Your task to perform on an android device: toggle priority inbox in the gmail app Image 0: 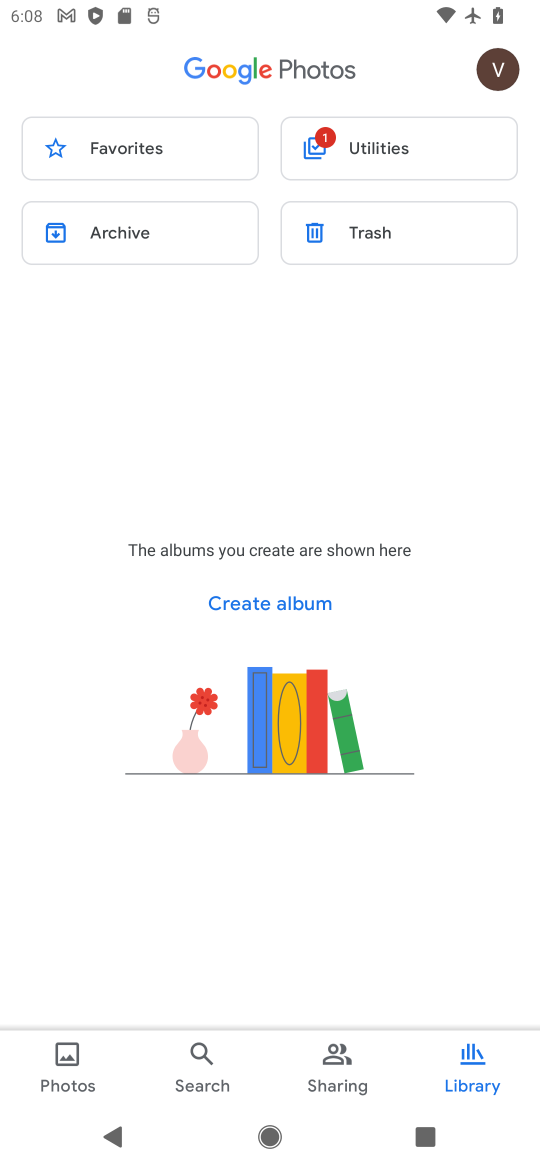
Step 0: press home button
Your task to perform on an android device: toggle priority inbox in the gmail app Image 1: 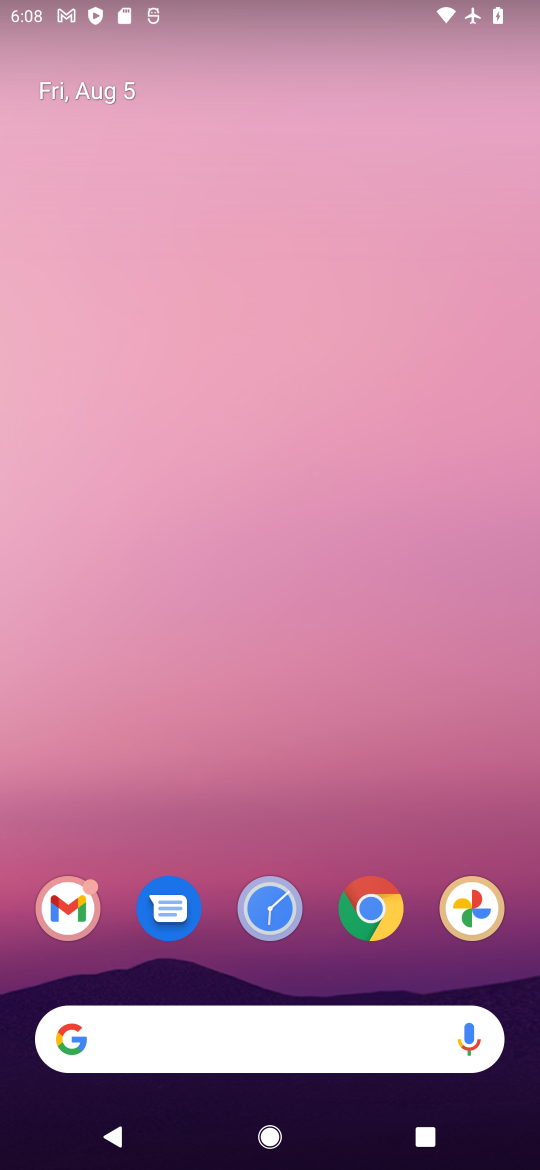
Step 1: click (65, 907)
Your task to perform on an android device: toggle priority inbox in the gmail app Image 2: 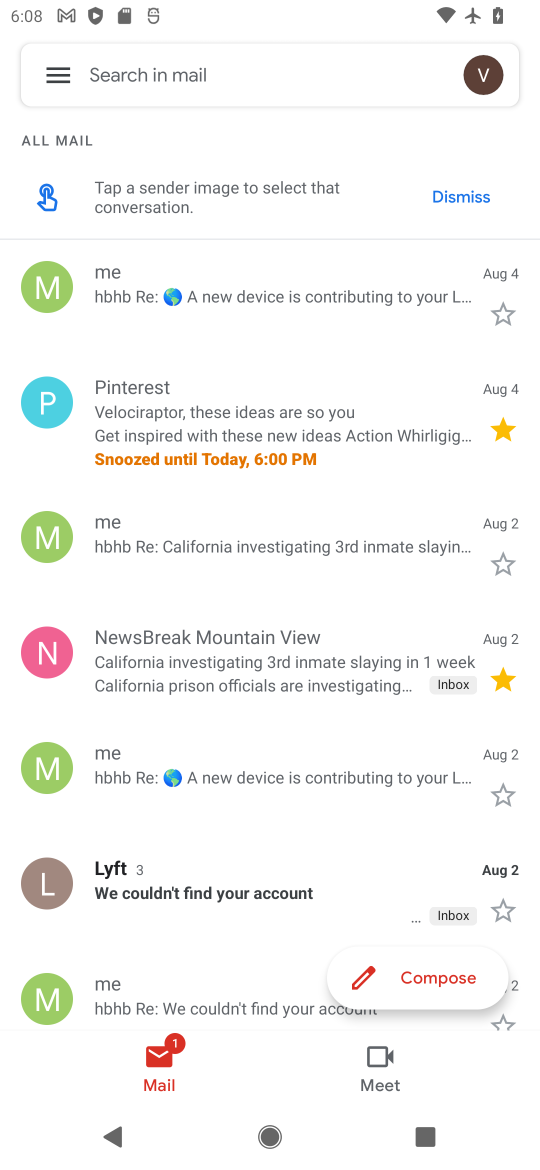
Step 2: click (57, 75)
Your task to perform on an android device: toggle priority inbox in the gmail app Image 3: 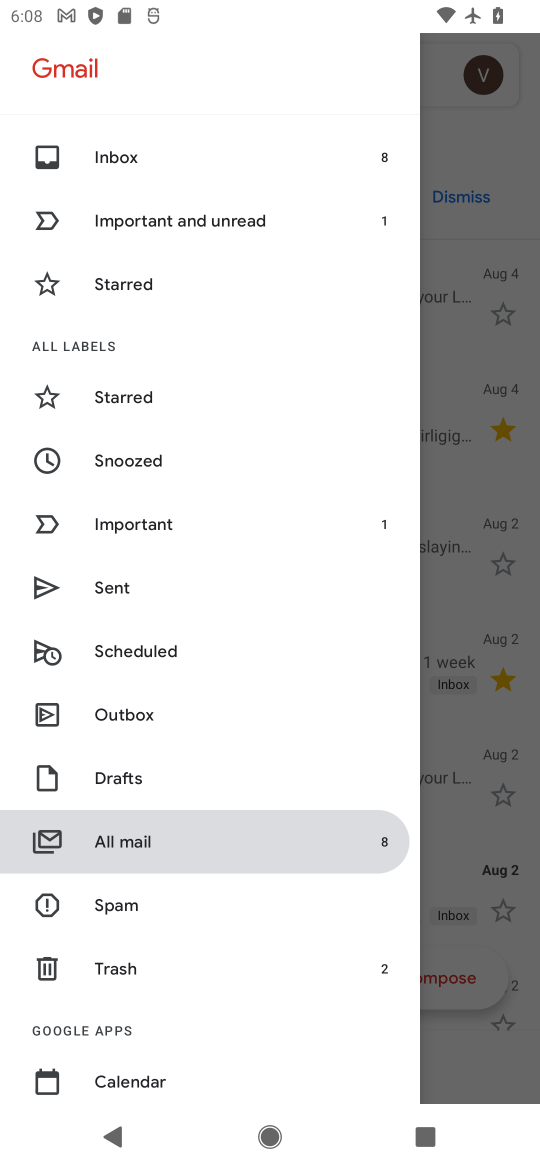
Step 3: drag from (232, 977) to (214, 436)
Your task to perform on an android device: toggle priority inbox in the gmail app Image 4: 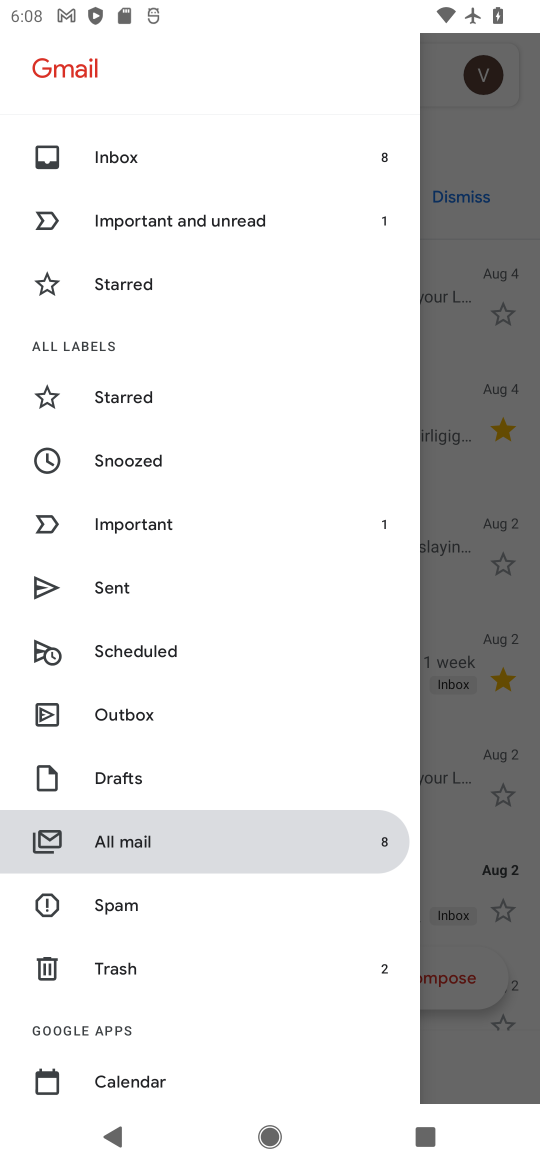
Step 4: drag from (153, 936) to (161, 540)
Your task to perform on an android device: toggle priority inbox in the gmail app Image 5: 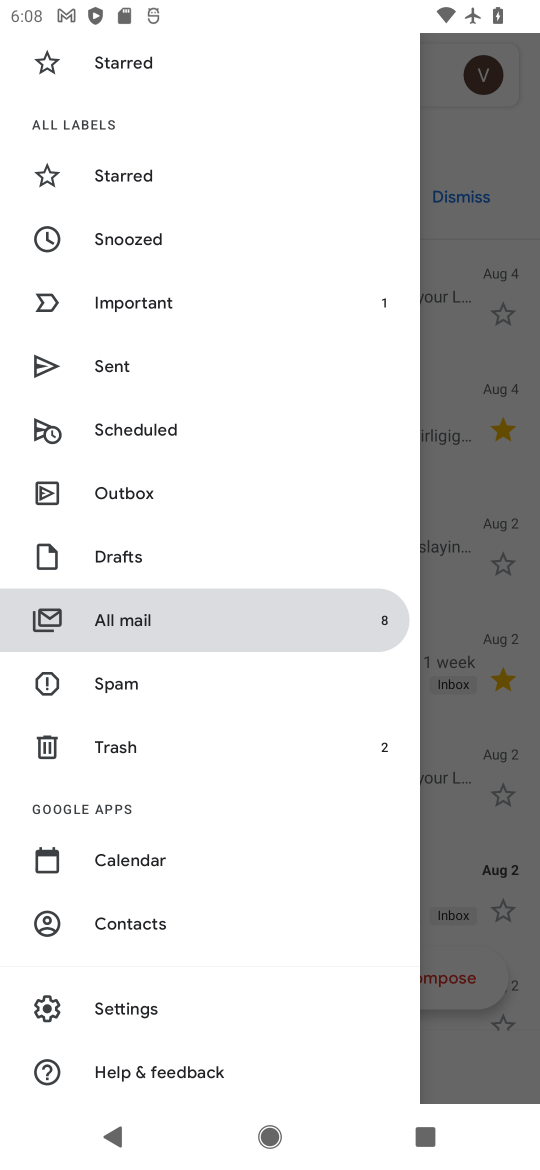
Step 5: click (144, 1014)
Your task to perform on an android device: toggle priority inbox in the gmail app Image 6: 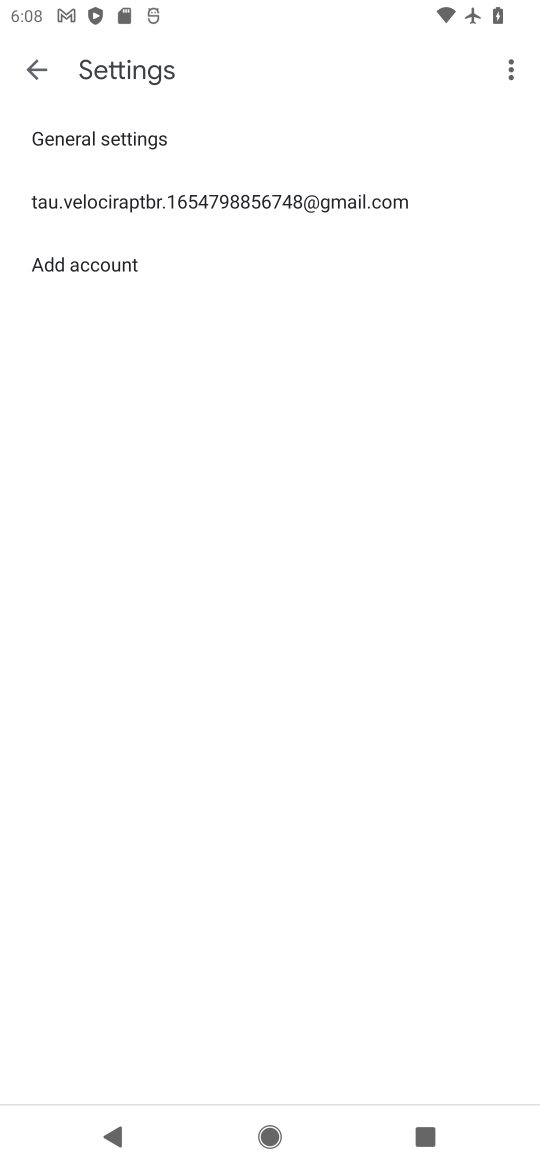
Step 6: click (222, 197)
Your task to perform on an android device: toggle priority inbox in the gmail app Image 7: 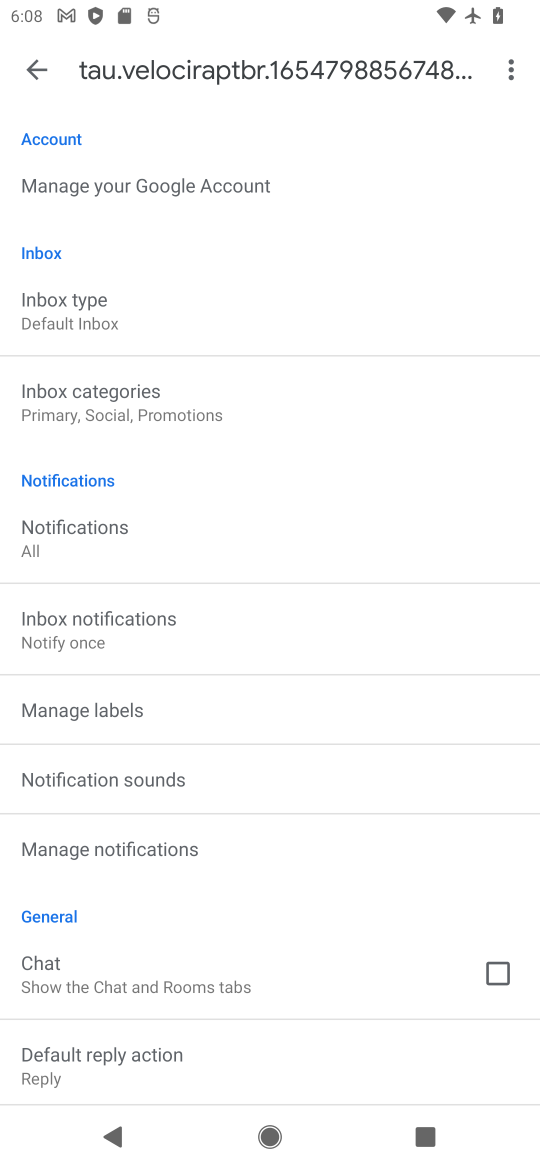
Step 7: click (70, 314)
Your task to perform on an android device: toggle priority inbox in the gmail app Image 8: 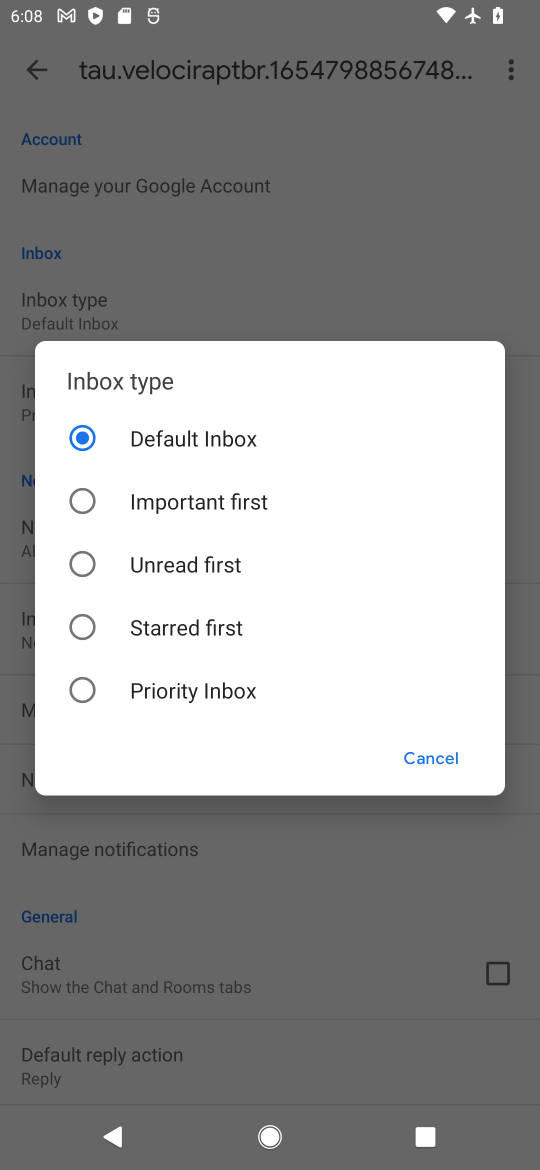
Step 8: click (83, 689)
Your task to perform on an android device: toggle priority inbox in the gmail app Image 9: 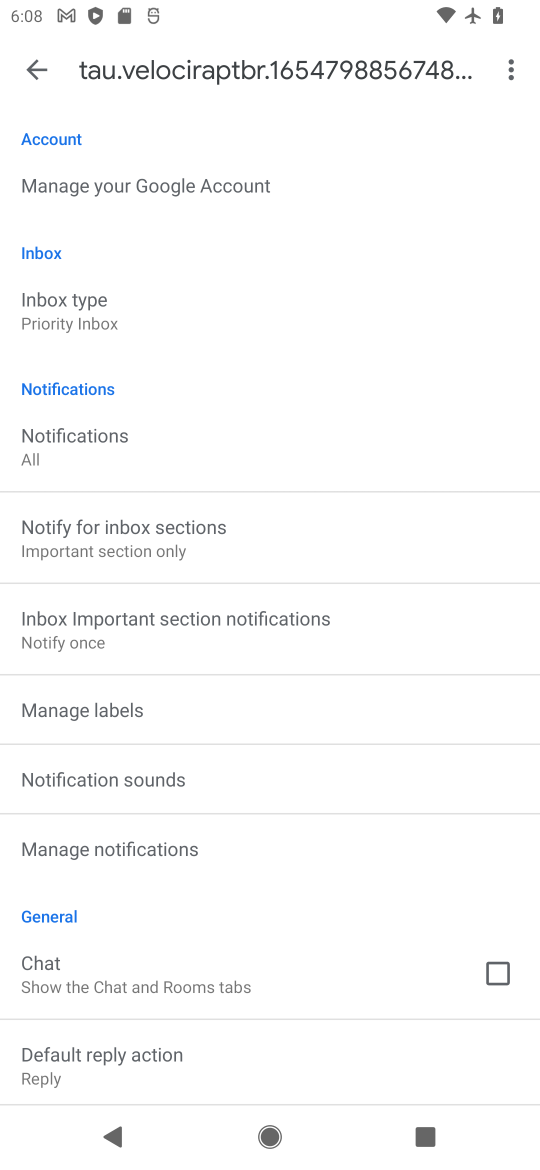
Step 9: task complete